Your task to perform on an android device: open app "Google Docs" Image 0: 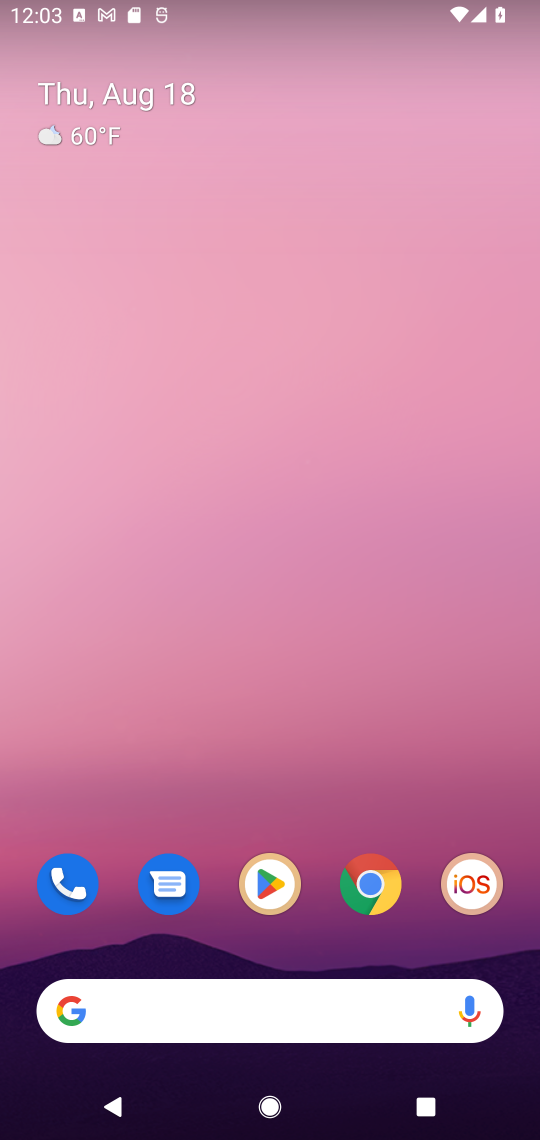
Step 0: drag from (184, 1007) to (322, 307)
Your task to perform on an android device: open app "Google Docs" Image 1: 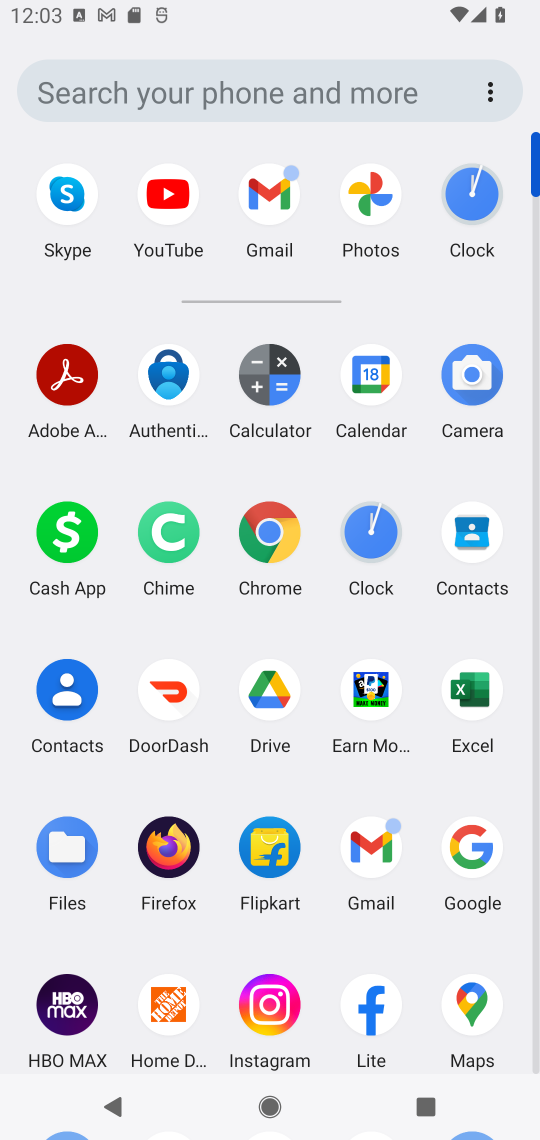
Step 1: drag from (297, 955) to (398, 362)
Your task to perform on an android device: open app "Google Docs" Image 2: 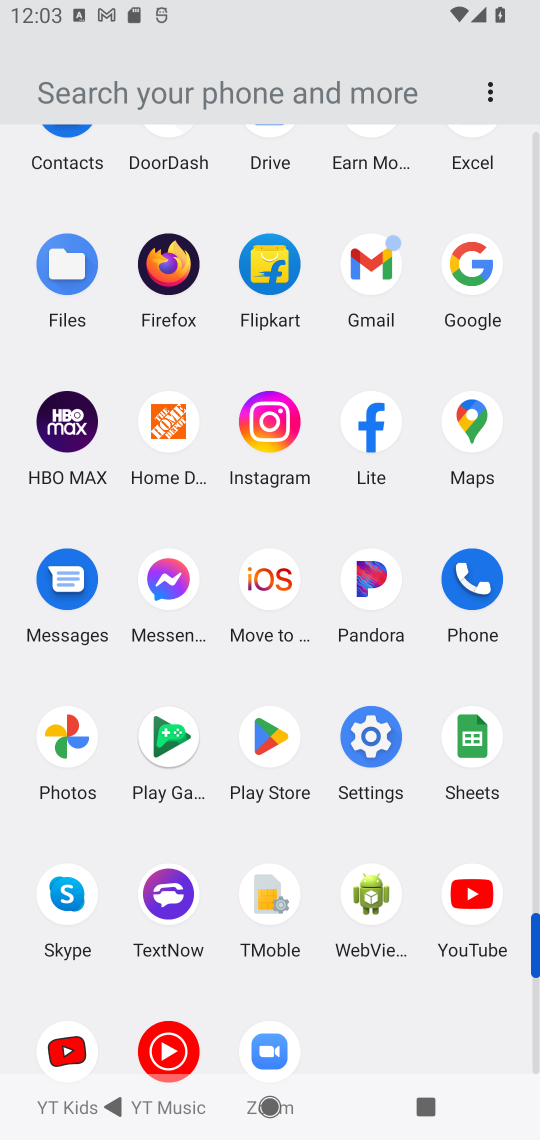
Step 2: click (262, 745)
Your task to perform on an android device: open app "Google Docs" Image 3: 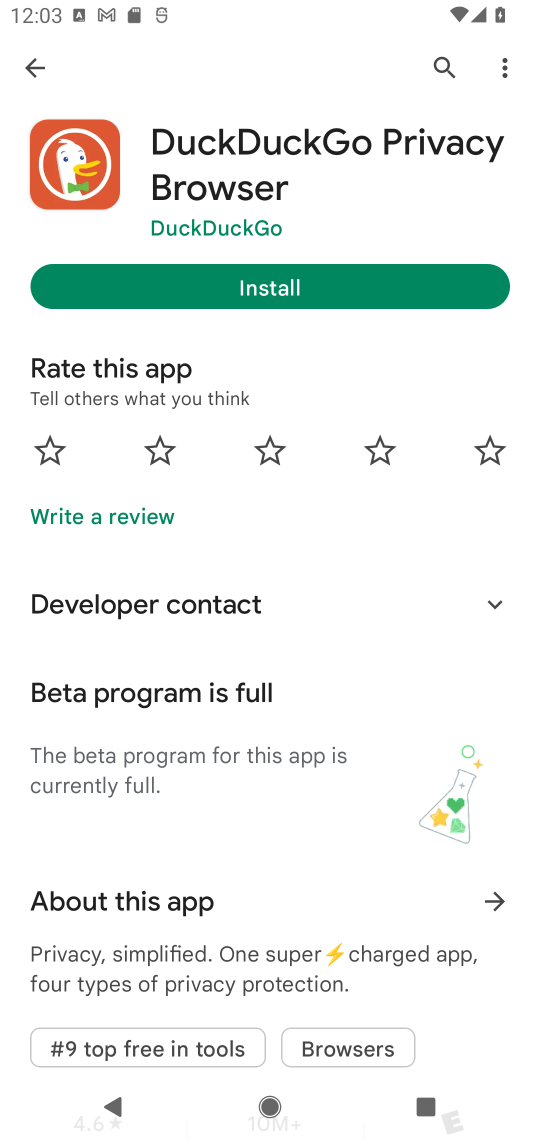
Step 3: press back button
Your task to perform on an android device: open app "Google Docs" Image 4: 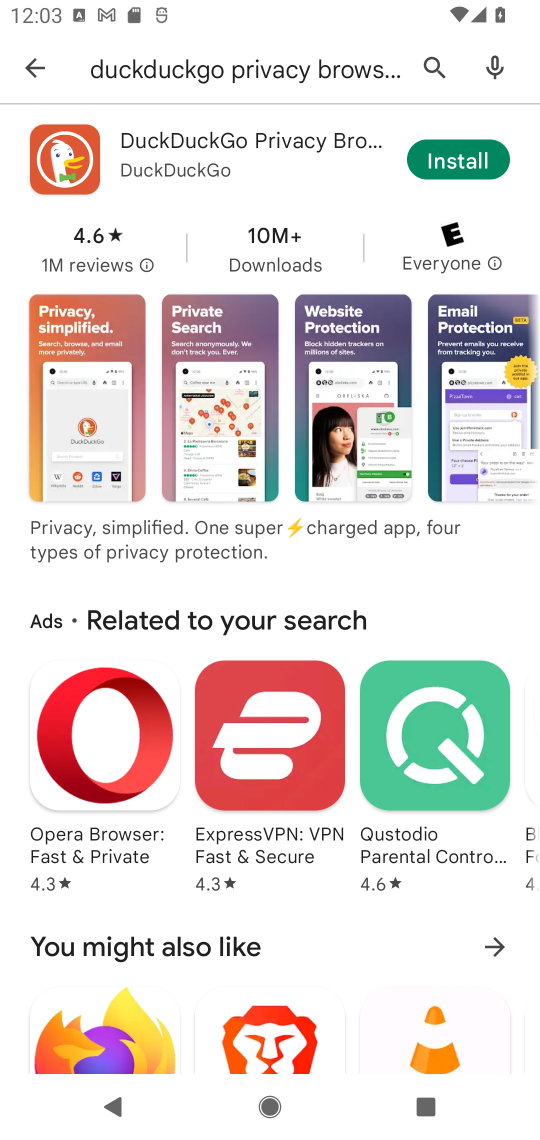
Step 4: press back button
Your task to perform on an android device: open app "Google Docs" Image 5: 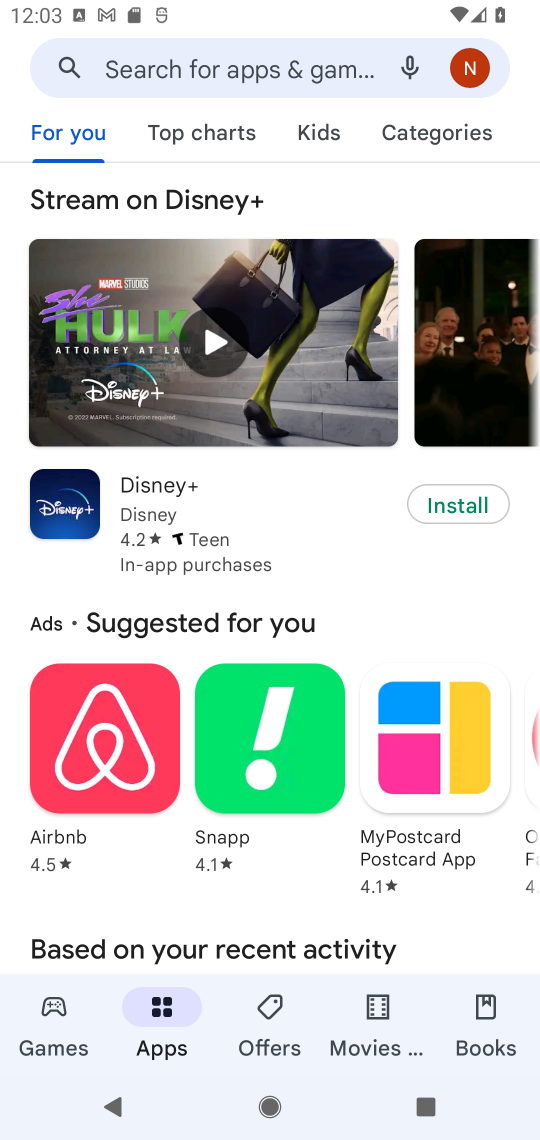
Step 5: click (354, 64)
Your task to perform on an android device: open app "Google Docs" Image 6: 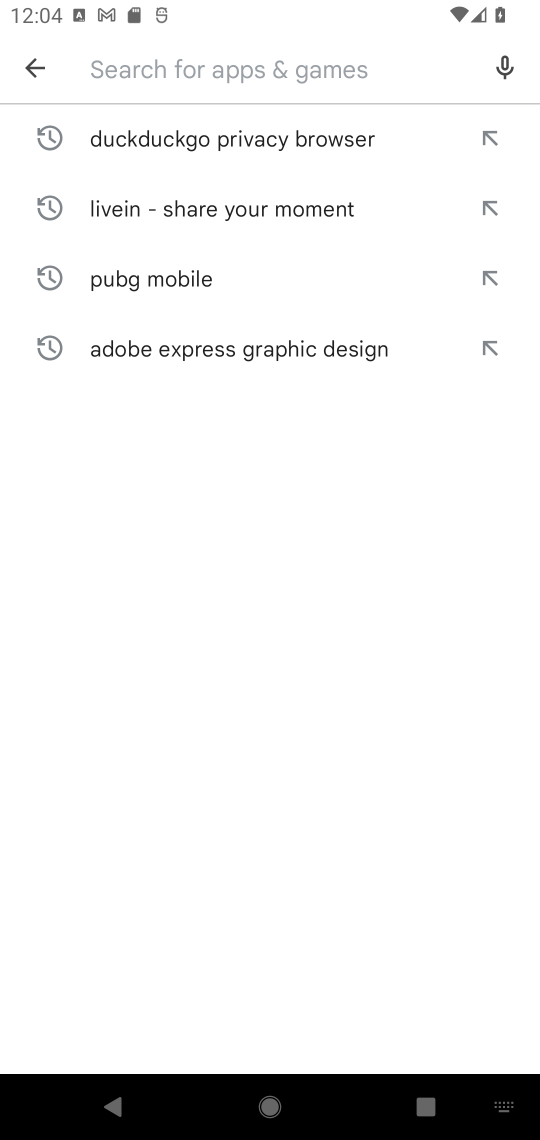
Step 6: type "Google Docs"
Your task to perform on an android device: open app "Google Docs" Image 7: 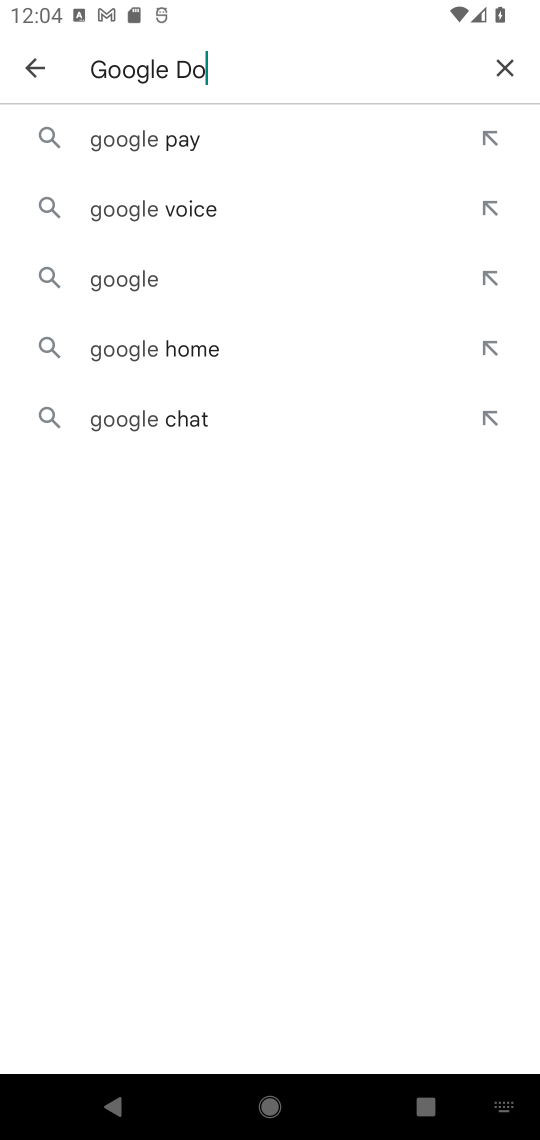
Step 7: type ""
Your task to perform on an android device: open app "Google Docs" Image 8: 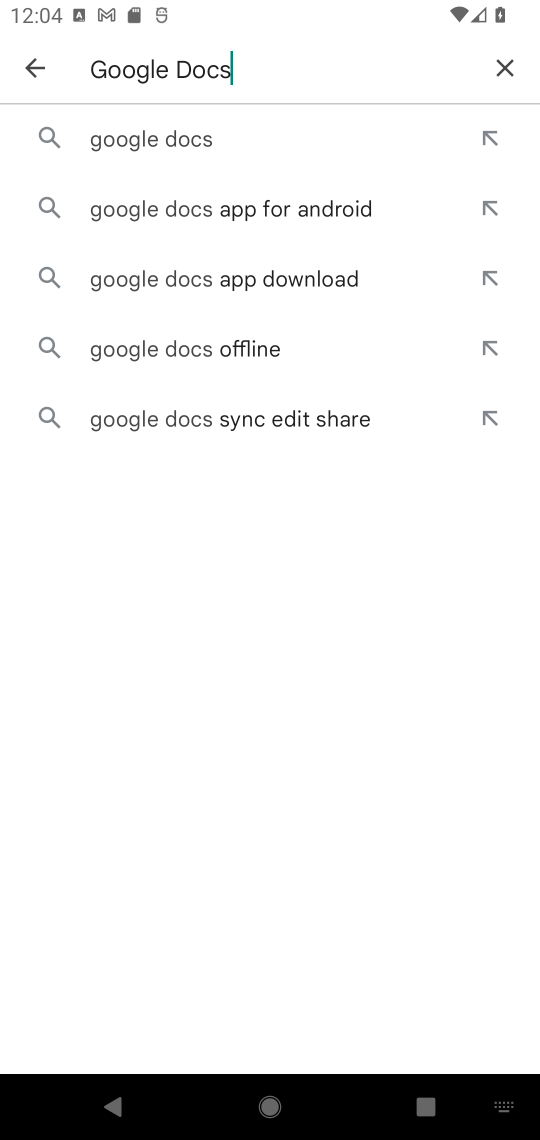
Step 8: click (136, 124)
Your task to perform on an android device: open app "Google Docs" Image 9: 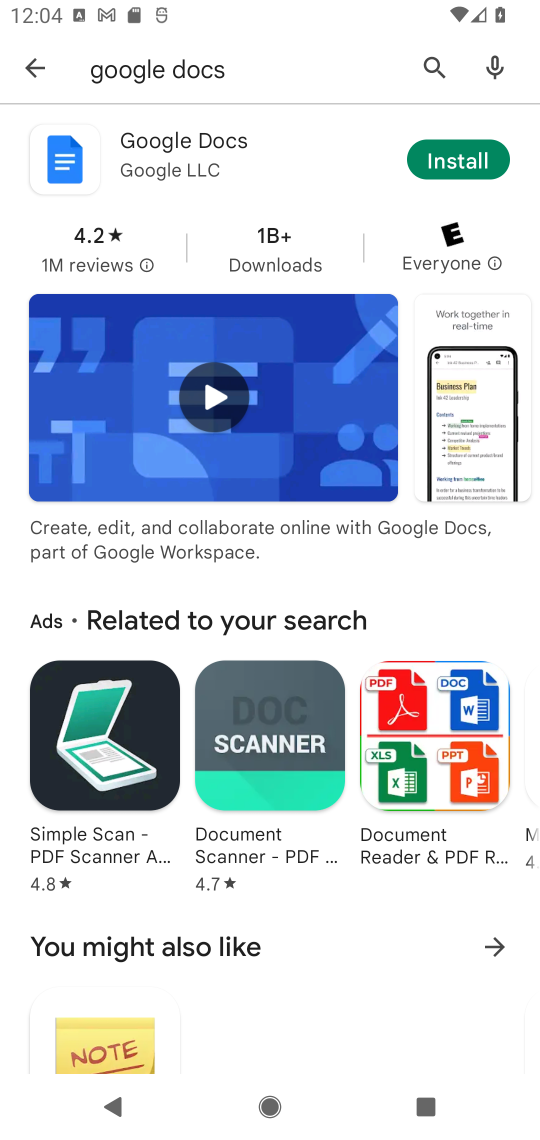
Step 9: task complete